Your task to perform on an android device: Go to Amazon Image 0: 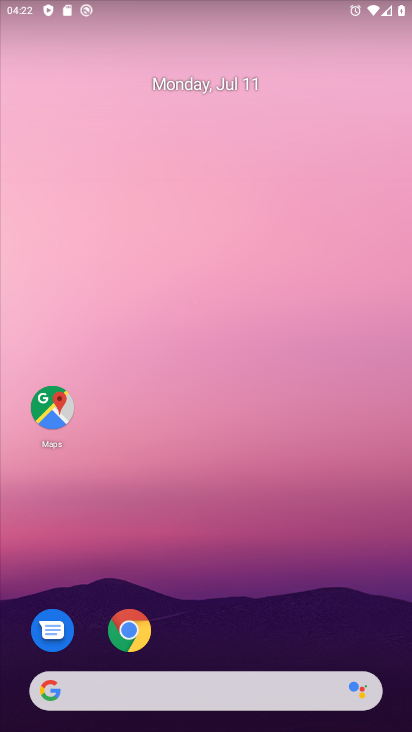
Step 0: press home button
Your task to perform on an android device: Go to Amazon Image 1: 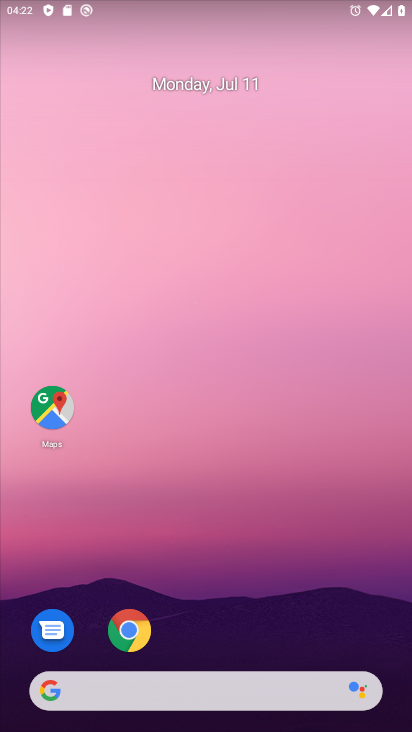
Step 1: click (122, 624)
Your task to perform on an android device: Go to Amazon Image 2: 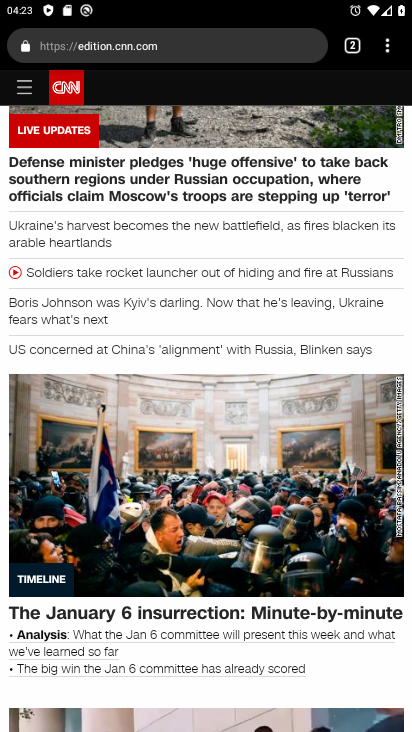
Step 2: click (351, 48)
Your task to perform on an android device: Go to Amazon Image 3: 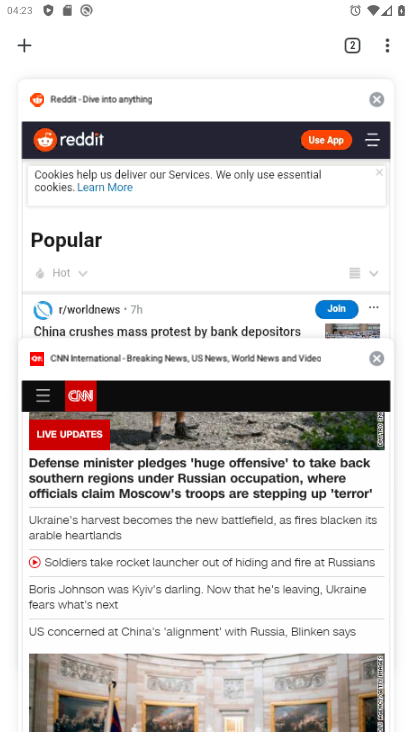
Step 3: click (22, 47)
Your task to perform on an android device: Go to Amazon Image 4: 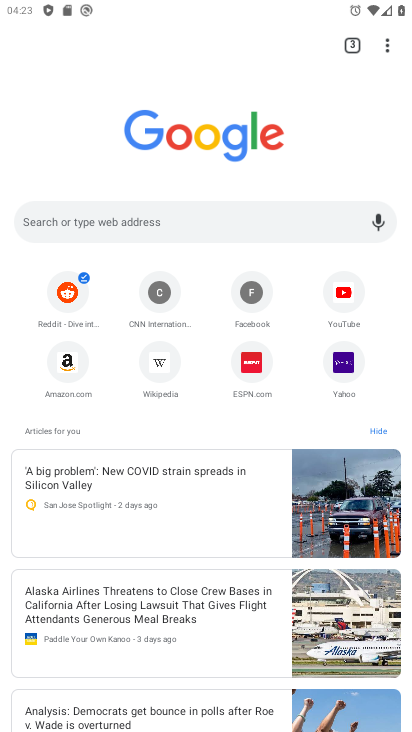
Step 4: click (66, 357)
Your task to perform on an android device: Go to Amazon Image 5: 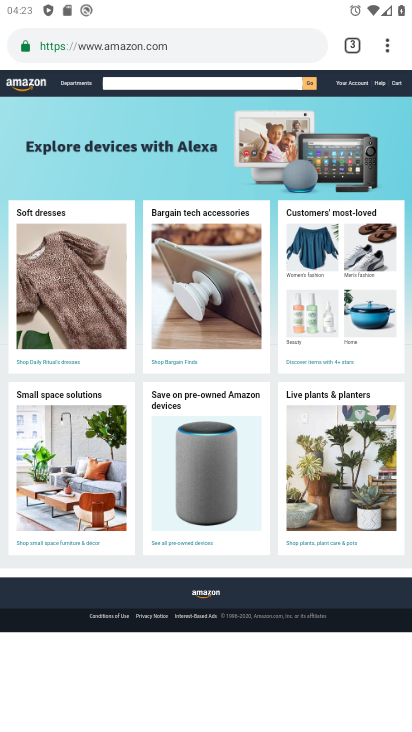
Step 5: task complete